Your task to perform on an android device: What's the weather going to be this weekend? Image 0: 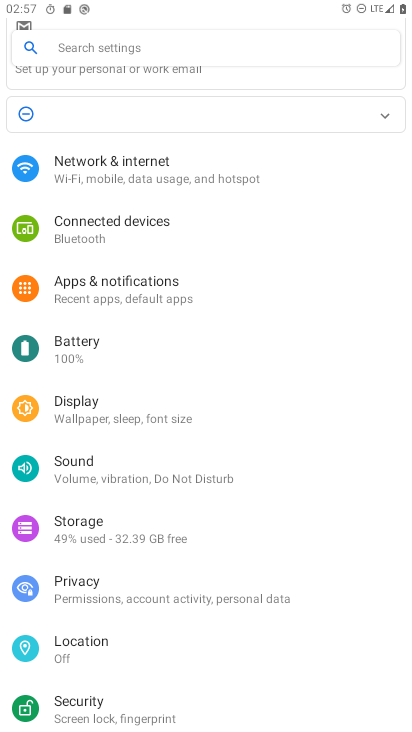
Step 0: press home button
Your task to perform on an android device: What's the weather going to be this weekend? Image 1: 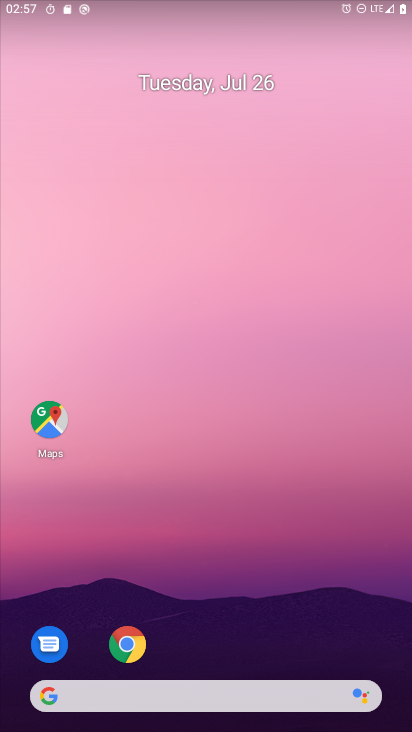
Step 1: click (217, 687)
Your task to perform on an android device: What's the weather going to be this weekend? Image 2: 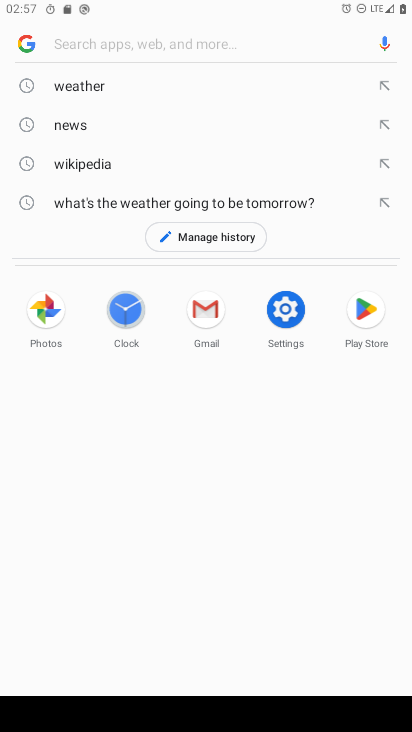
Step 2: click (87, 94)
Your task to perform on an android device: What's the weather going to be this weekend? Image 3: 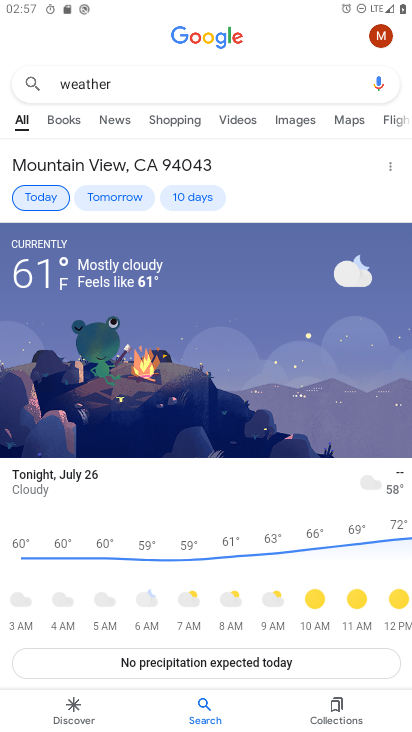
Step 3: click (176, 192)
Your task to perform on an android device: What's the weather going to be this weekend? Image 4: 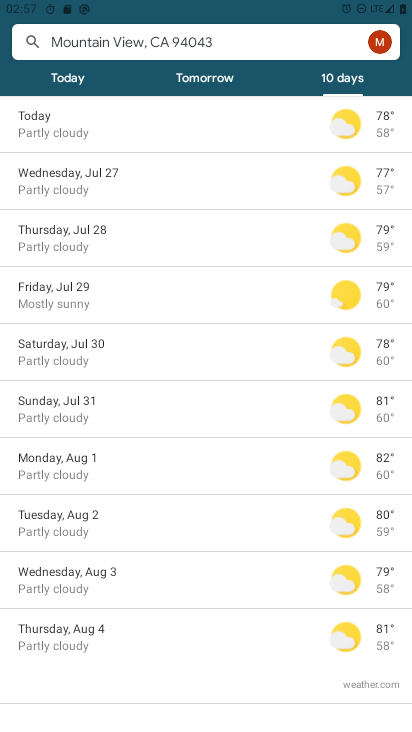
Step 4: click (49, 356)
Your task to perform on an android device: What's the weather going to be this weekend? Image 5: 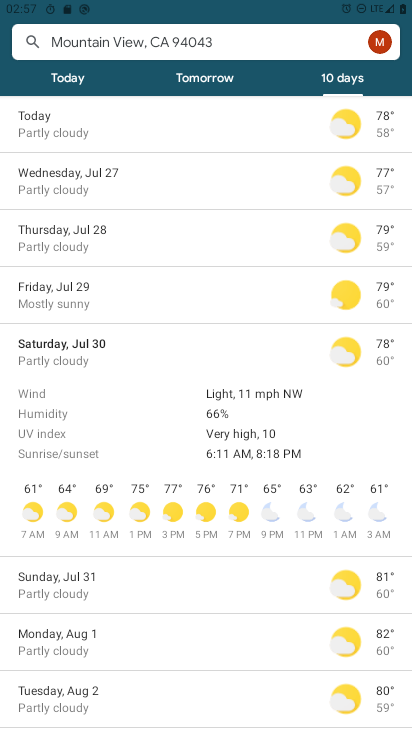
Step 5: task complete